Your task to perform on an android device: Go to battery settings Image 0: 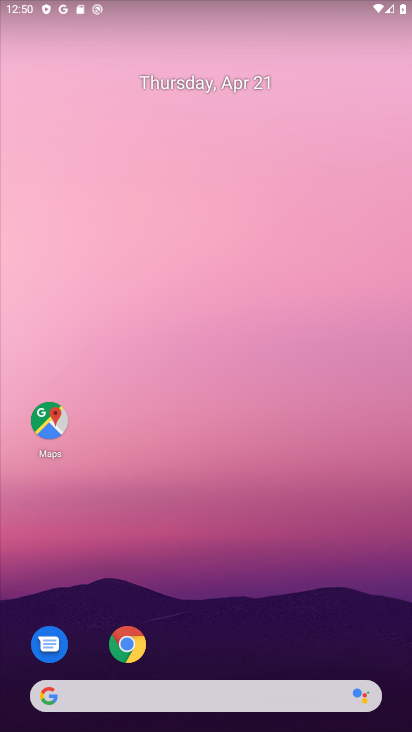
Step 0: drag from (292, 573) to (292, 73)
Your task to perform on an android device: Go to battery settings Image 1: 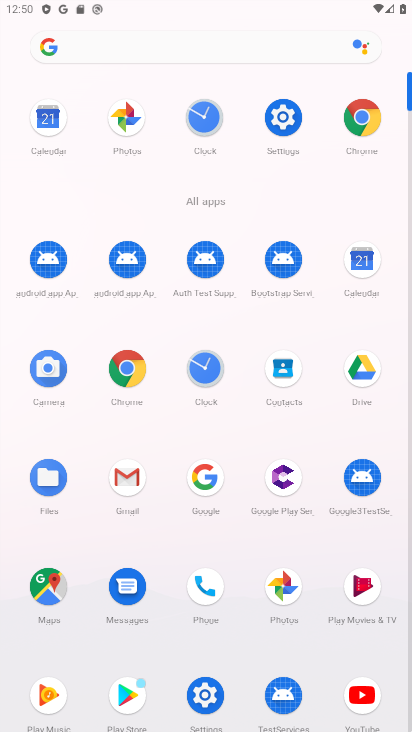
Step 1: click (286, 118)
Your task to perform on an android device: Go to battery settings Image 2: 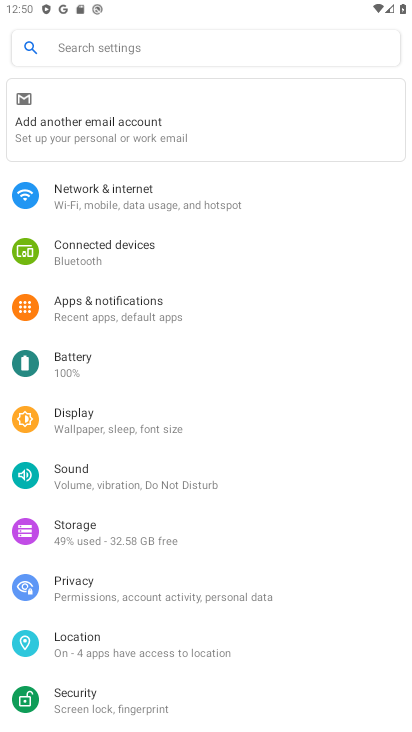
Step 2: click (226, 367)
Your task to perform on an android device: Go to battery settings Image 3: 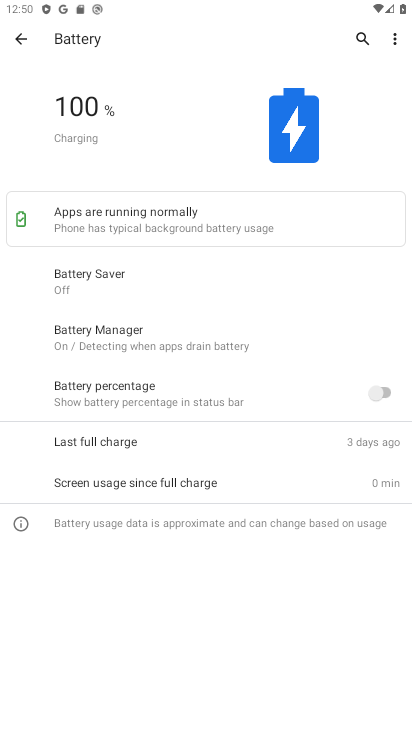
Step 3: task complete